Your task to perform on an android device: Check the news Image 0: 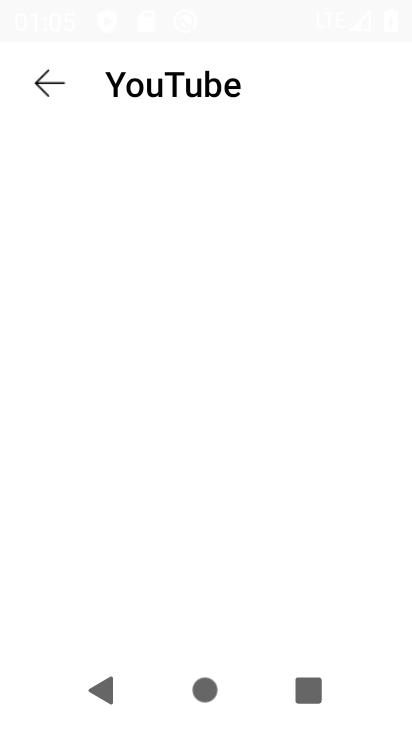
Step 0: click (265, 449)
Your task to perform on an android device: Check the news Image 1: 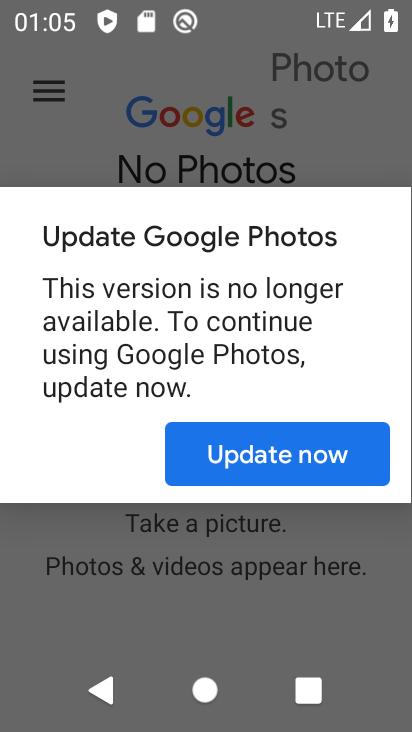
Step 1: click (273, 451)
Your task to perform on an android device: Check the news Image 2: 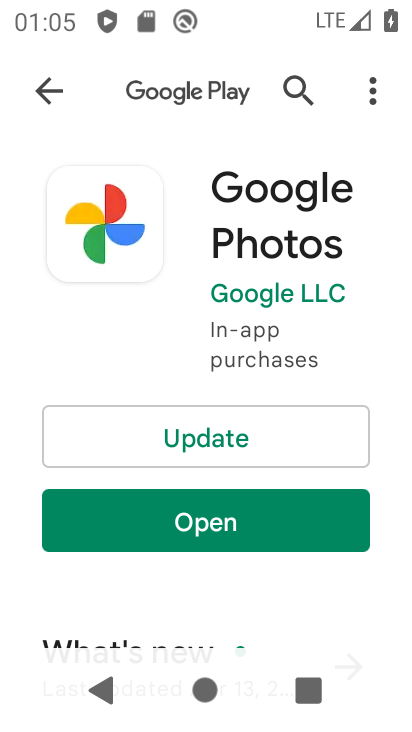
Step 2: press home button
Your task to perform on an android device: Check the news Image 3: 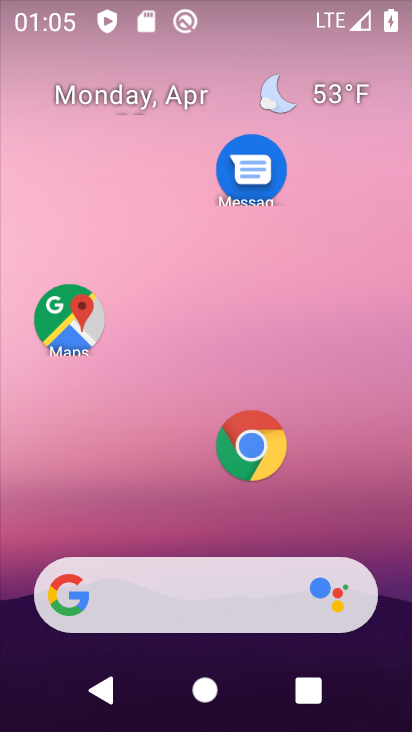
Step 3: click (201, 600)
Your task to perform on an android device: Check the news Image 4: 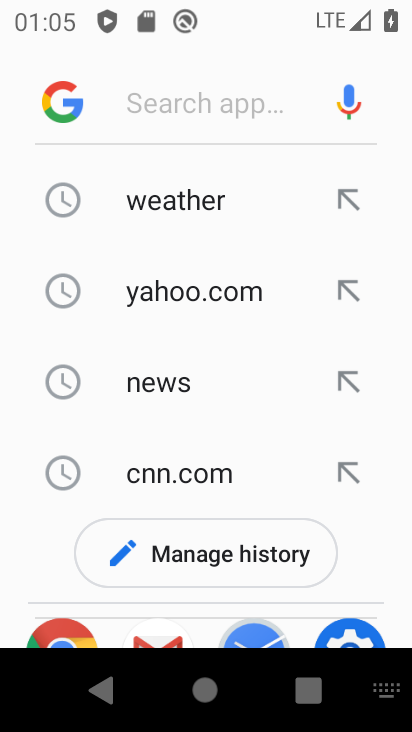
Step 4: click (168, 383)
Your task to perform on an android device: Check the news Image 5: 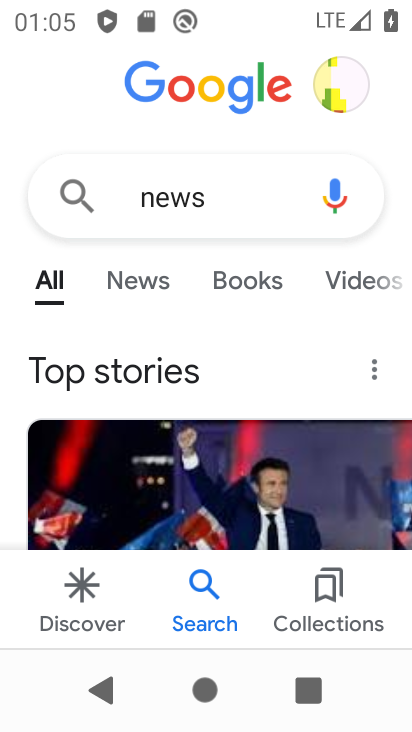
Step 5: task complete